Your task to perform on an android device: turn on translation in the chrome app Image 0: 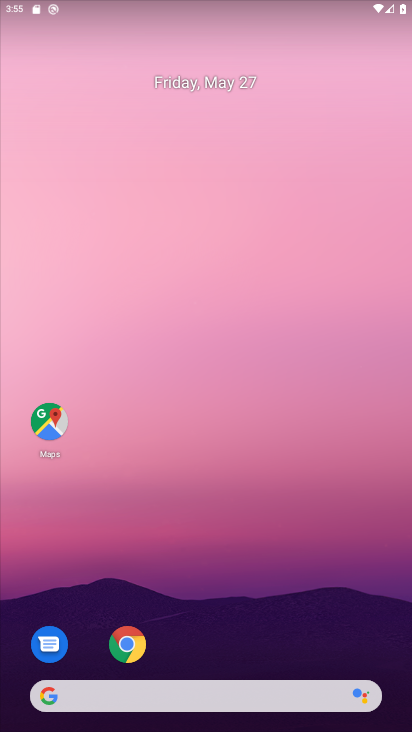
Step 0: drag from (254, 590) to (174, 83)
Your task to perform on an android device: turn on translation in the chrome app Image 1: 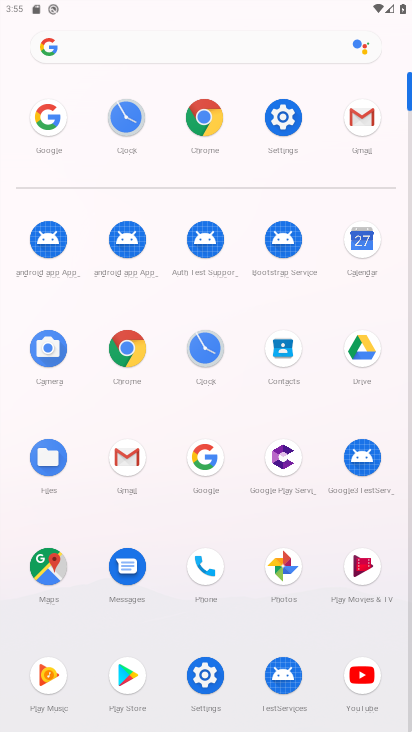
Step 1: click (119, 346)
Your task to perform on an android device: turn on translation in the chrome app Image 2: 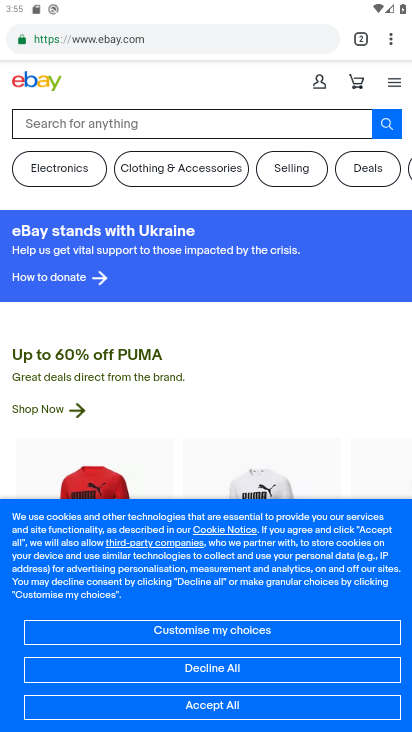
Step 2: click (392, 30)
Your task to perform on an android device: turn on translation in the chrome app Image 3: 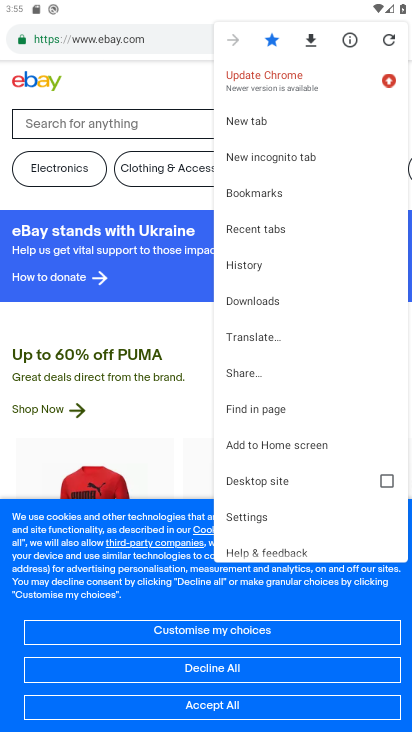
Step 3: click (270, 509)
Your task to perform on an android device: turn on translation in the chrome app Image 4: 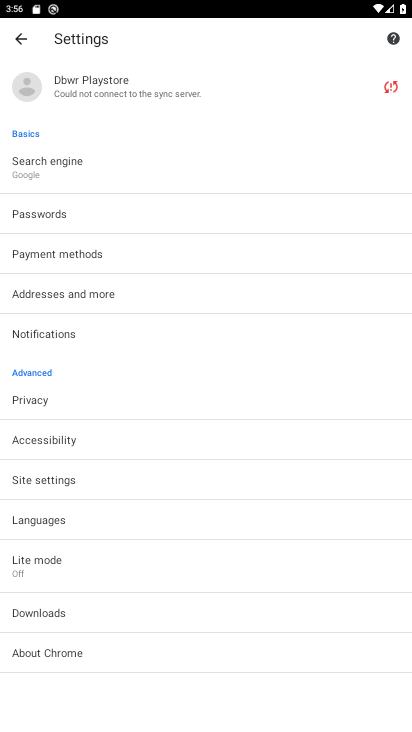
Step 4: click (86, 515)
Your task to perform on an android device: turn on translation in the chrome app Image 5: 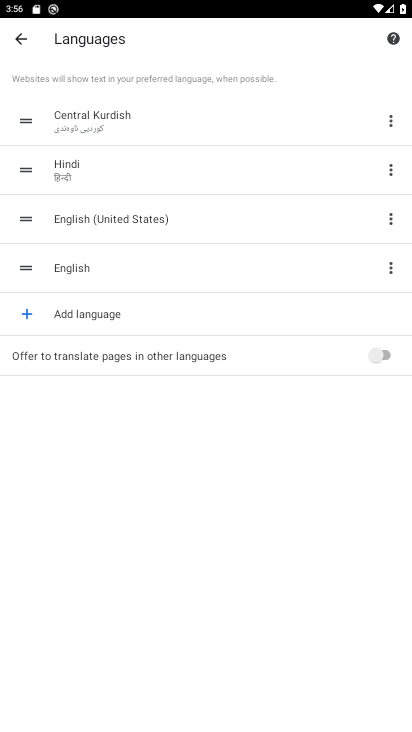
Step 5: click (383, 347)
Your task to perform on an android device: turn on translation in the chrome app Image 6: 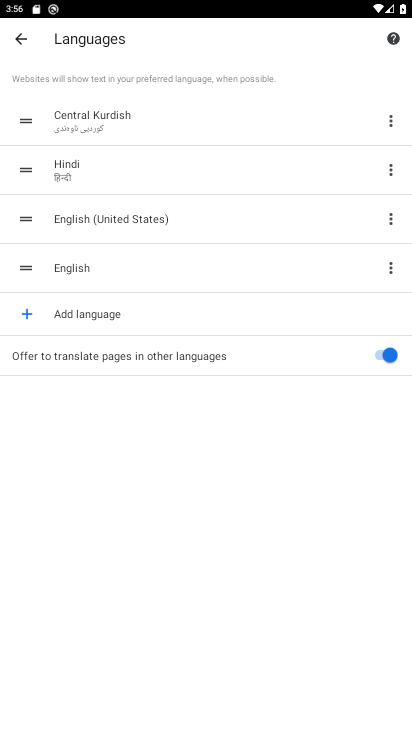
Step 6: task complete